Your task to perform on an android device: When is my next appointment? Image 0: 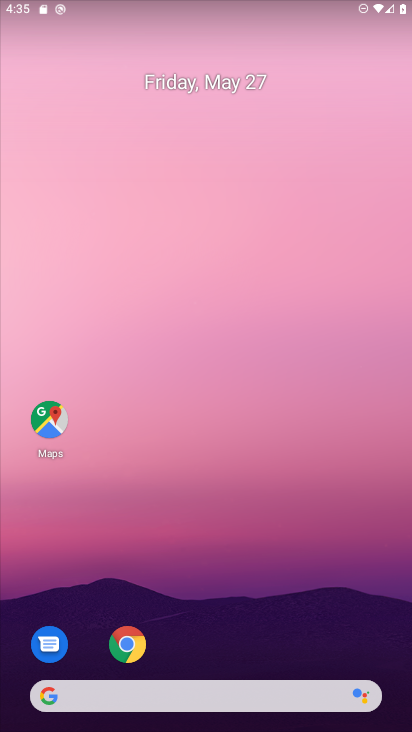
Step 0: click (258, 71)
Your task to perform on an android device: When is my next appointment? Image 1: 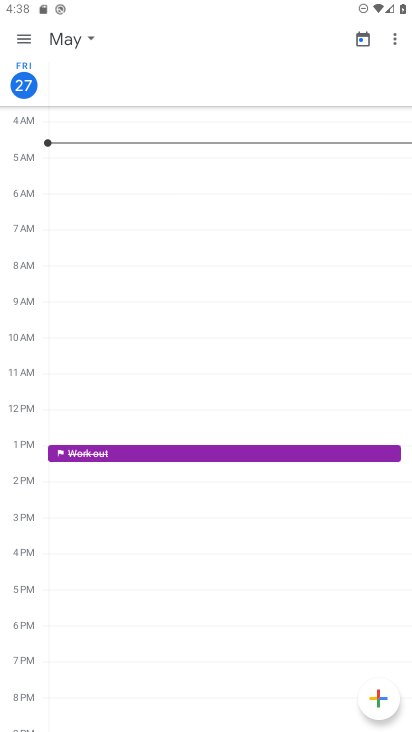
Step 1: task complete